Your task to perform on an android device: search for starred emails in the gmail app Image 0: 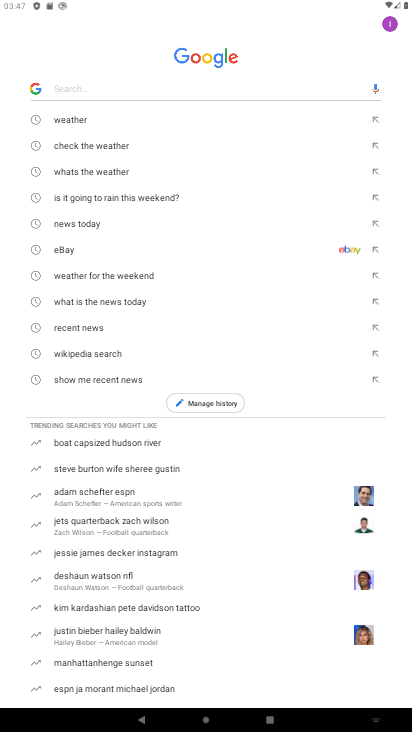
Step 0: press home button
Your task to perform on an android device: search for starred emails in the gmail app Image 1: 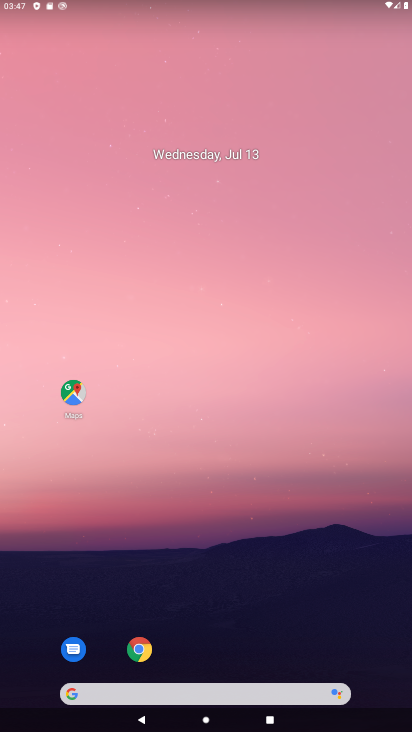
Step 1: drag from (188, 687) to (288, 223)
Your task to perform on an android device: search for starred emails in the gmail app Image 2: 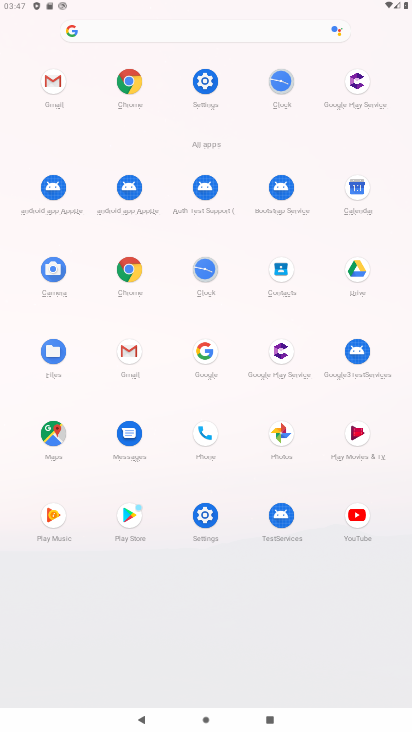
Step 2: click (54, 80)
Your task to perform on an android device: search for starred emails in the gmail app Image 3: 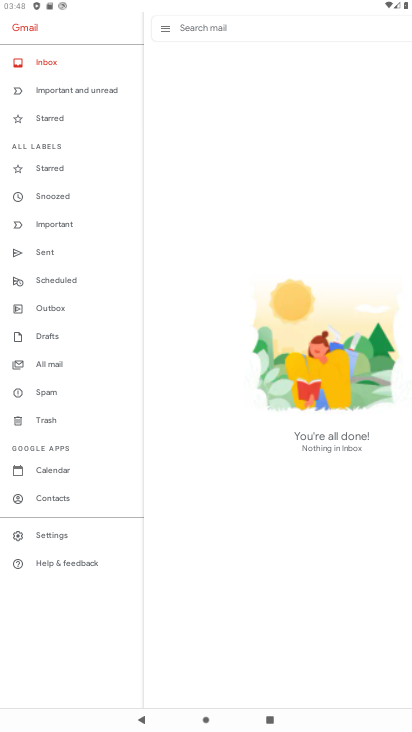
Step 3: click (54, 171)
Your task to perform on an android device: search for starred emails in the gmail app Image 4: 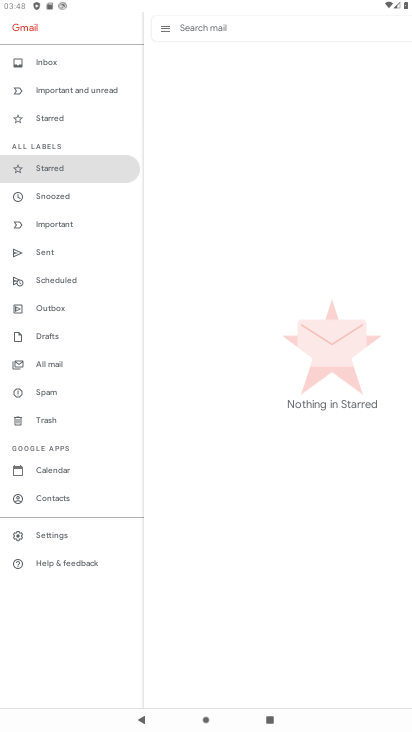
Step 4: task complete